Your task to perform on an android device: Go to sound settings Image 0: 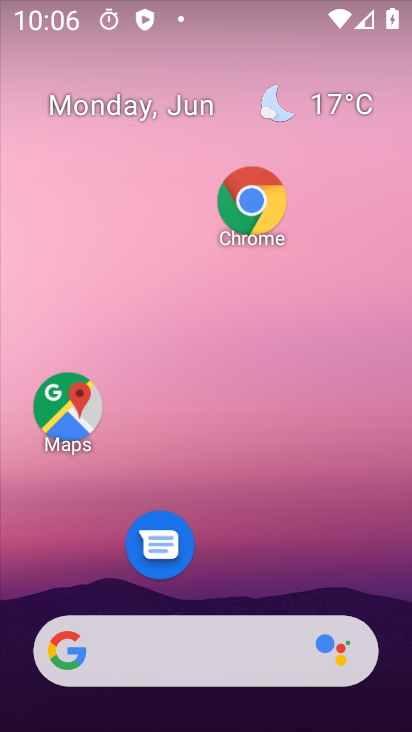
Step 0: drag from (240, 602) to (139, 49)
Your task to perform on an android device: Go to sound settings Image 1: 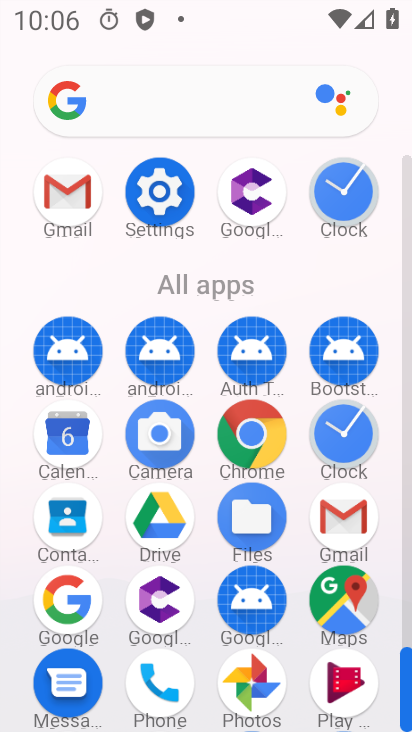
Step 1: click (163, 216)
Your task to perform on an android device: Go to sound settings Image 2: 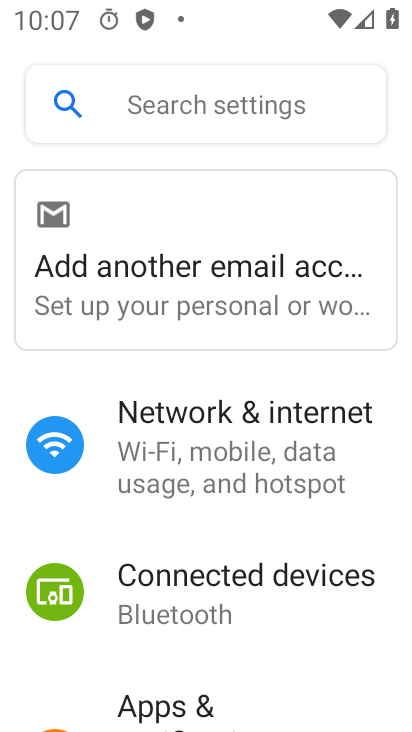
Step 2: drag from (165, 640) to (127, 245)
Your task to perform on an android device: Go to sound settings Image 3: 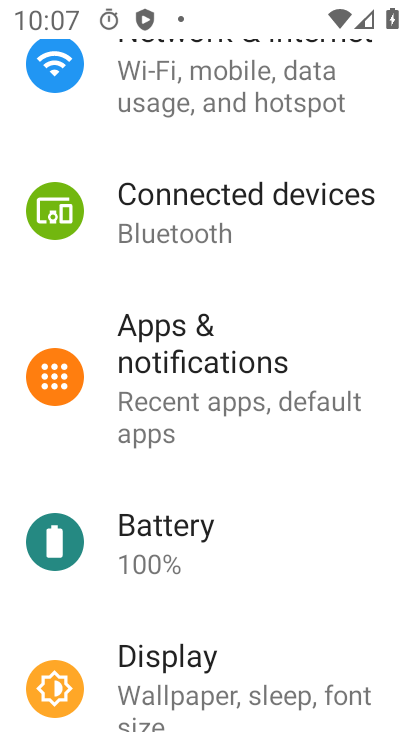
Step 3: drag from (228, 570) to (216, 251)
Your task to perform on an android device: Go to sound settings Image 4: 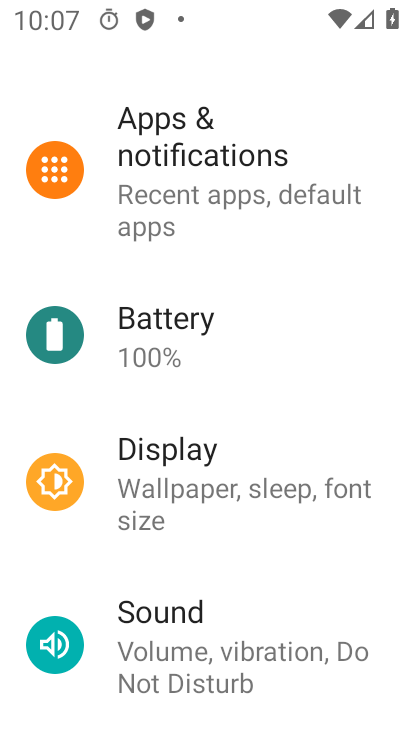
Step 4: click (169, 626)
Your task to perform on an android device: Go to sound settings Image 5: 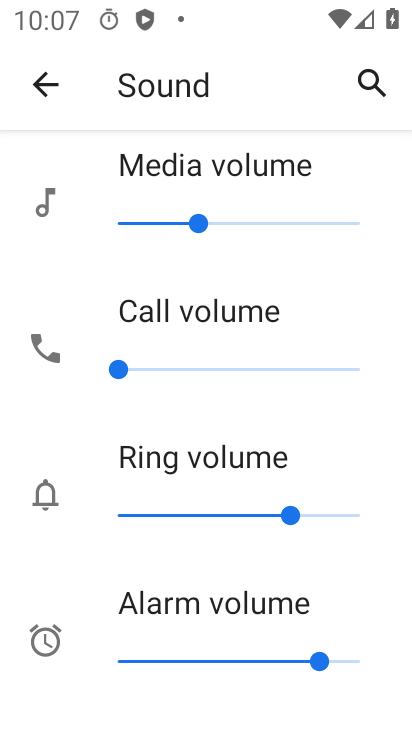
Step 5: task complete